Your task to perform on an android device: add a contact Image 0: 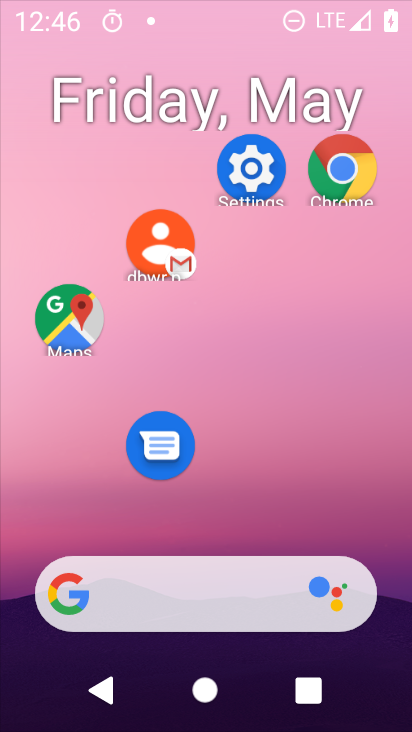
Step 0: click (263, 176)
Your task to perform on an android device: add a contact Image 1: 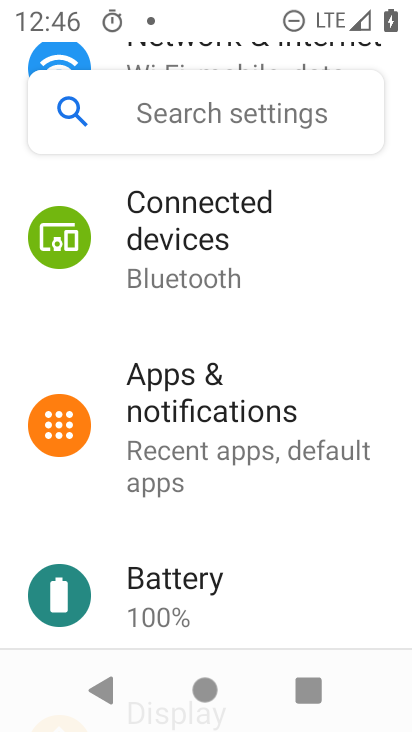
Step 1: press home button
Your task to perform on an android device: add a contact Image 2: 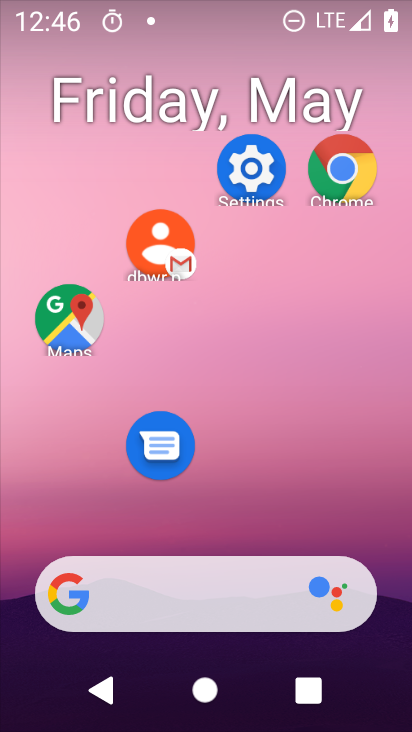
Step 2: drag from (217, 494) to (195, 126)
Your task to perform on an android device: add a contact Image 3: 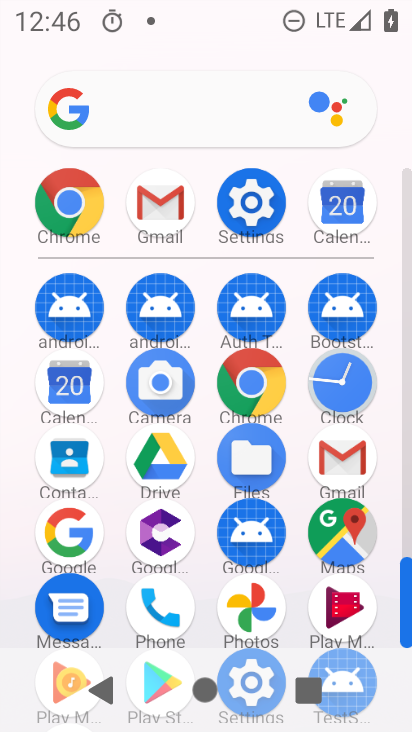
Step 3: click (64, 457)
Your task to perform on an android device: add a contact Image 4: 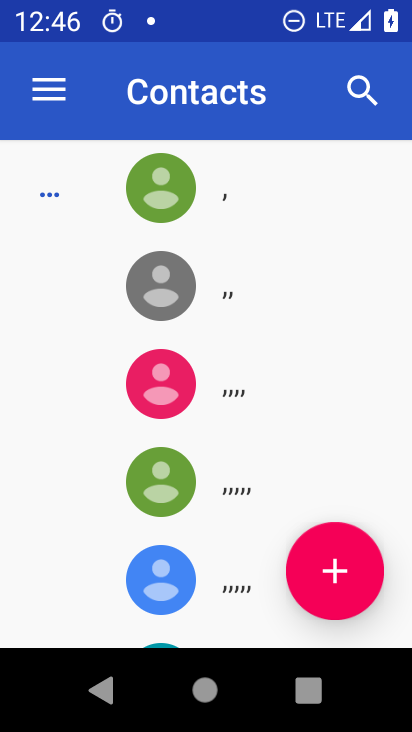
Step 4: click (338, 560)
Your task to perform on an android device: add a contact Image 5: 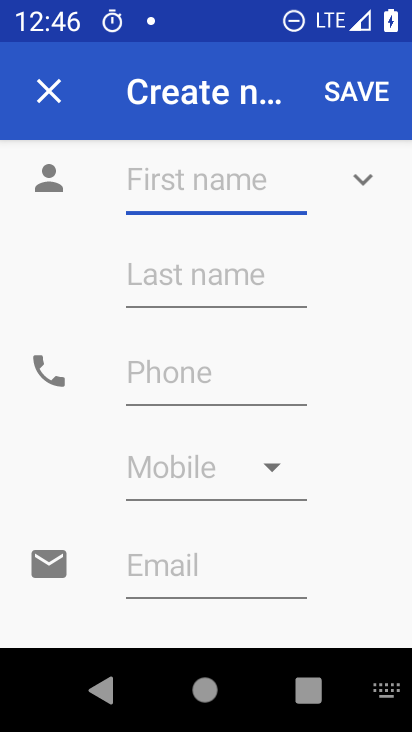
Step 5: click (224, 161)
Your task to perform on an android device: add a contact Image 6: 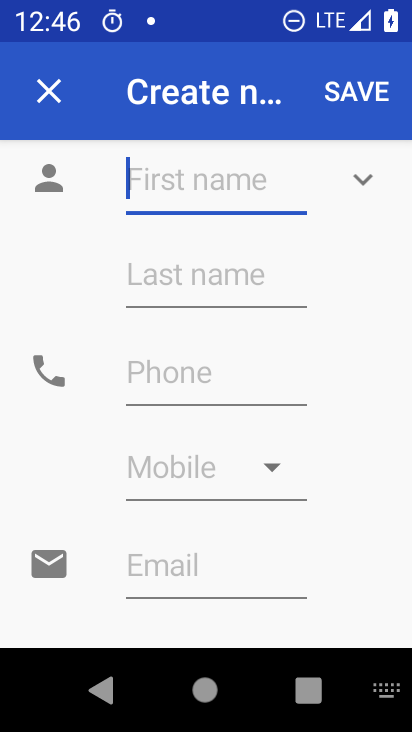
Step 6: click (182, 172)
Your task to perform on an android device: add a contact Image 7: 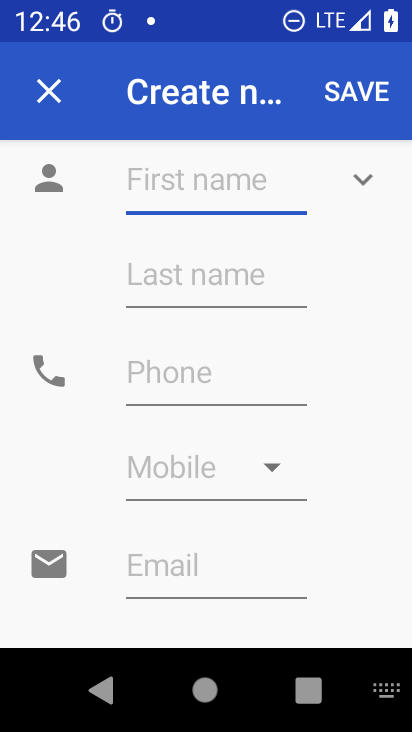
Step 7: type "mbnj"
Your task to perform on an android device: add a contact Image 8: 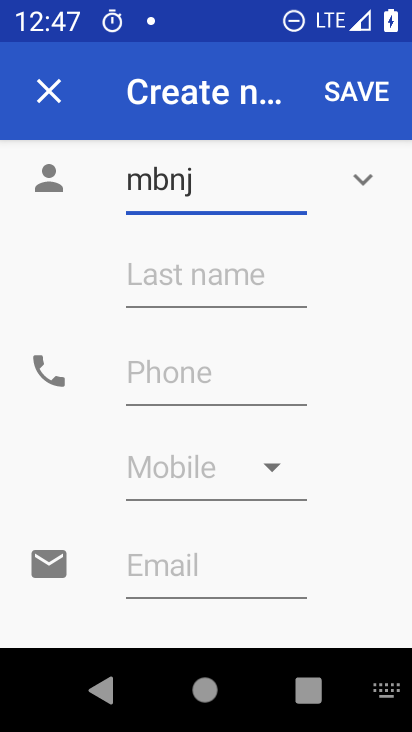
Step 8: drag from (209, 526) to (249, 297)
Your task to perform on an android device: add a contact Image 9: 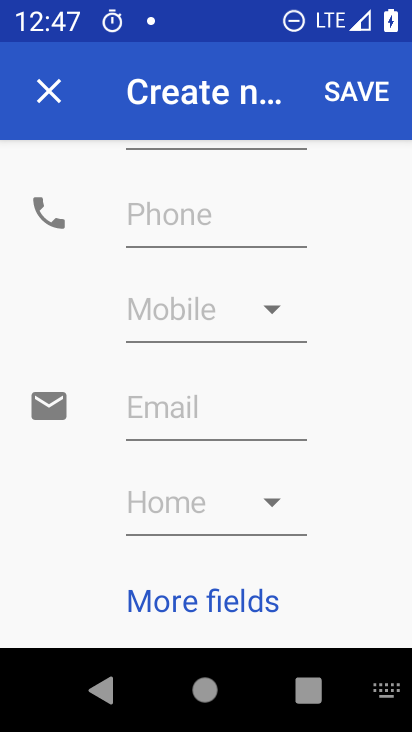
Step 9: drag from (183, 546) to (224, 167)
Your task to perform on an android device: add a contact Image 10: 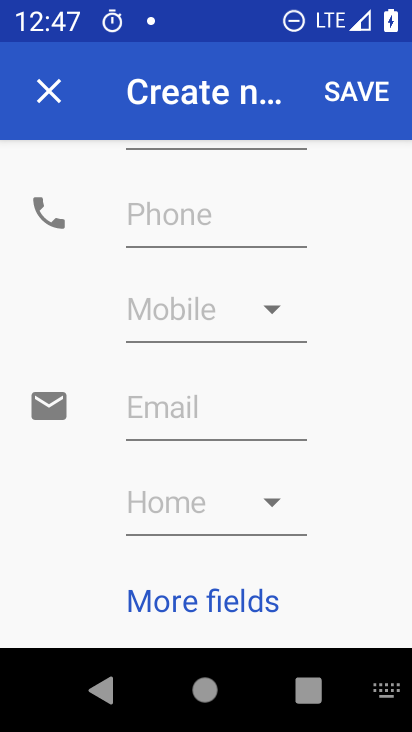
Step 10: drag from (154, 202) to (248, 565)
Your task to perform on an android device: add a contact Image 11: 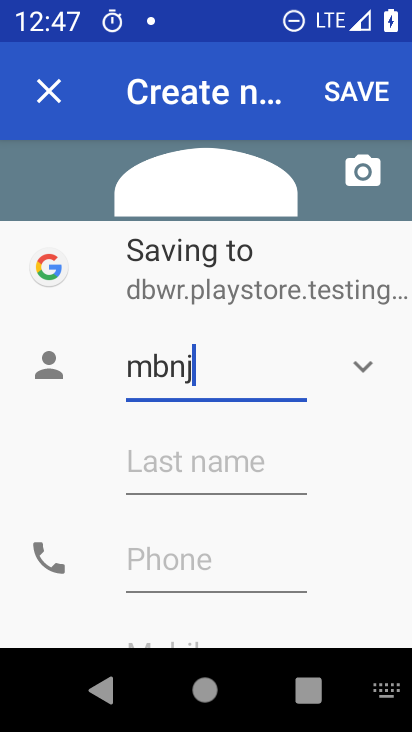
Step 11: click (379, 85)
Your task to perform on an android device: add a contact Image 12: 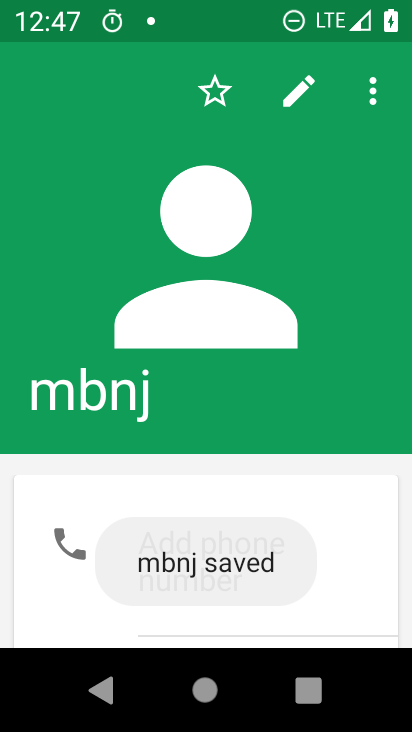
Step 12: task complete